Your task to perform on an android device: Open network settings Image 0: 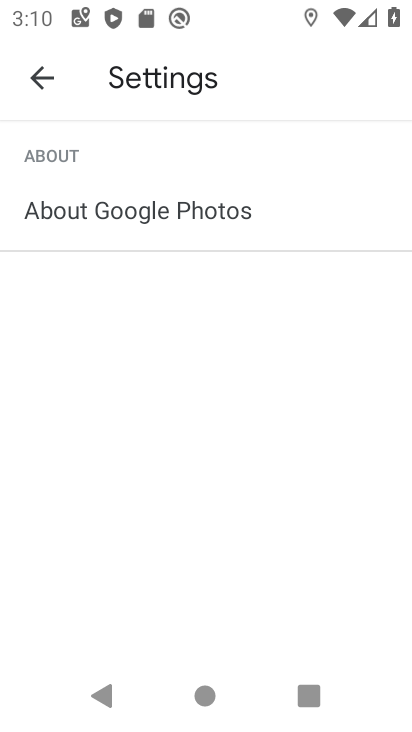
Step 0: press back button
Your task to perform on an android device: Open network settings Image 1: 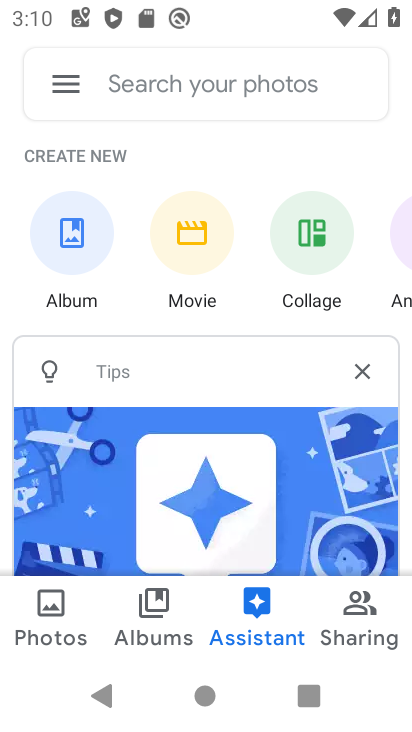
Step 1: press back button
Your task to perform on an android device: Open network settings Image 2: 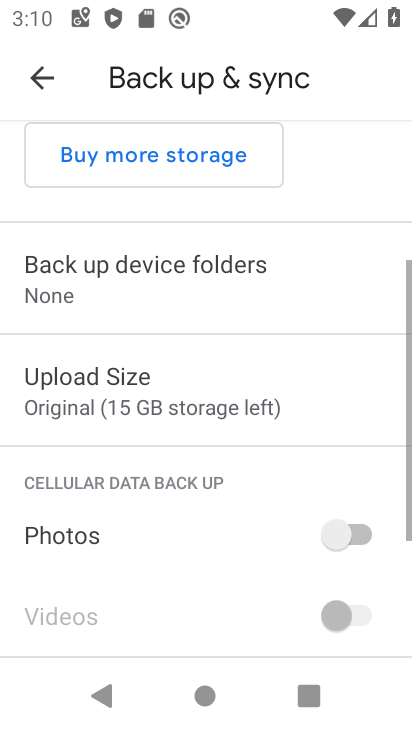
Step 2: press back button
Your task to perform on an android device: Open network settings Image 3: 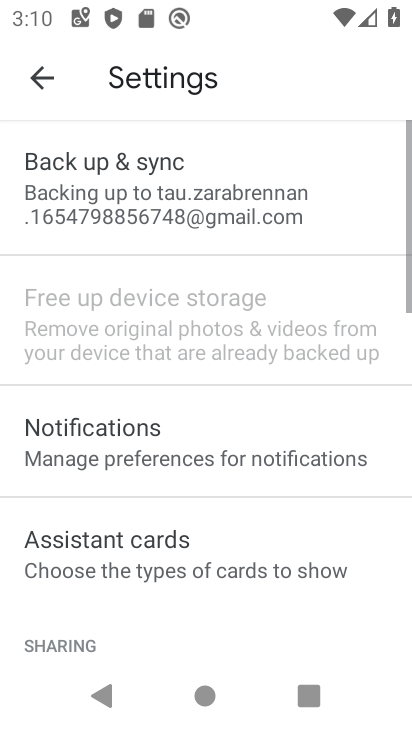
Step 3: press back button
Your task to perform on an android device: Open network settings Image 4: 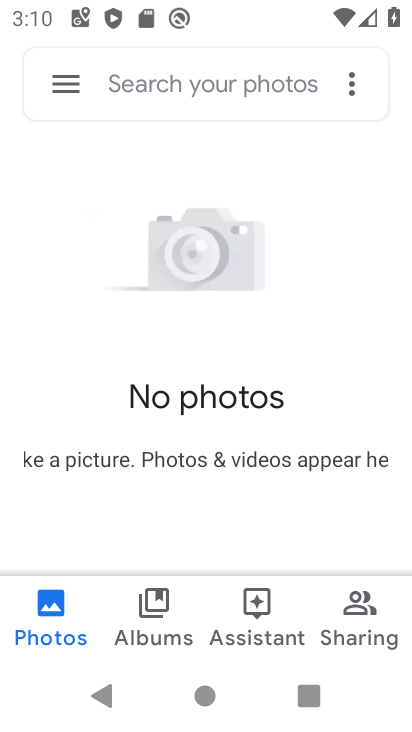
Step 4: press back button
Your task to perform on an android device: Open network settings Image 5: 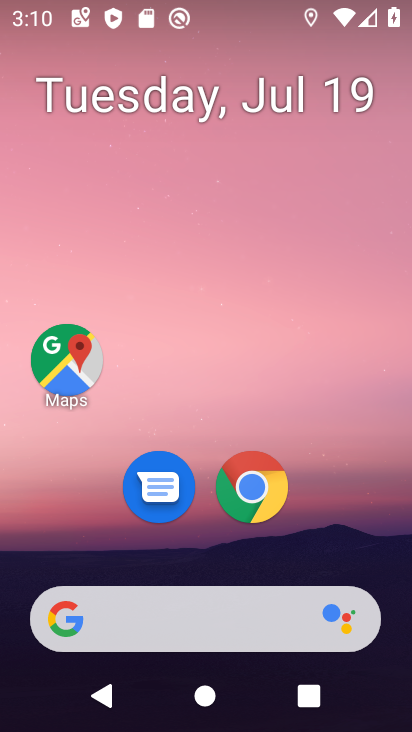
Step 5: drag from (176, 589) to (178, 189)
Your task to perform on an android device: Open network settings Image 6: 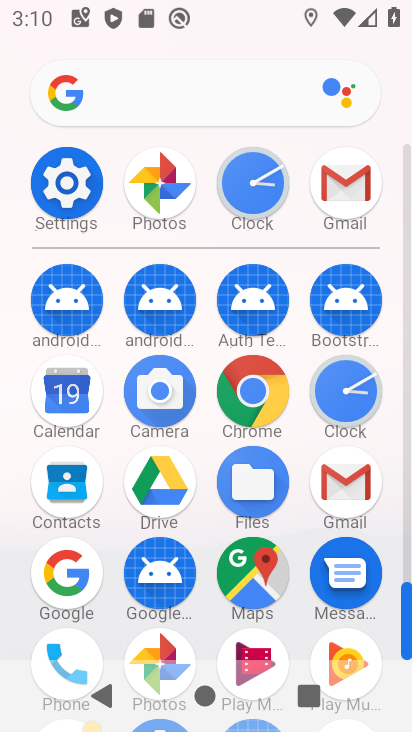
Step 6: click (75, 192)
Your task to perform on an android device: Open network settings Image 7: 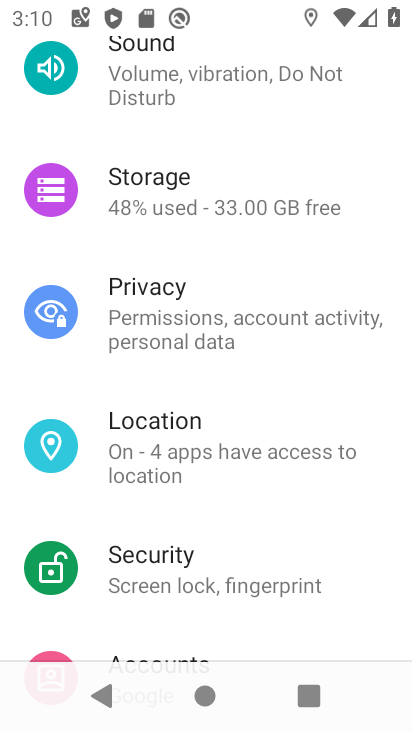
Step 7: click (224, 728)
Your task to perform on an android device: Open network settings Image 8: 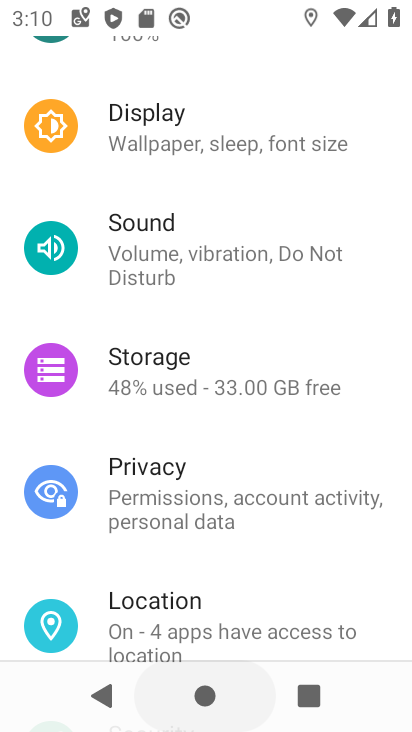
Step 8: drag from (213, 170) to (213, 687)
Your task to perform on an android device: Open network settings Image 9: 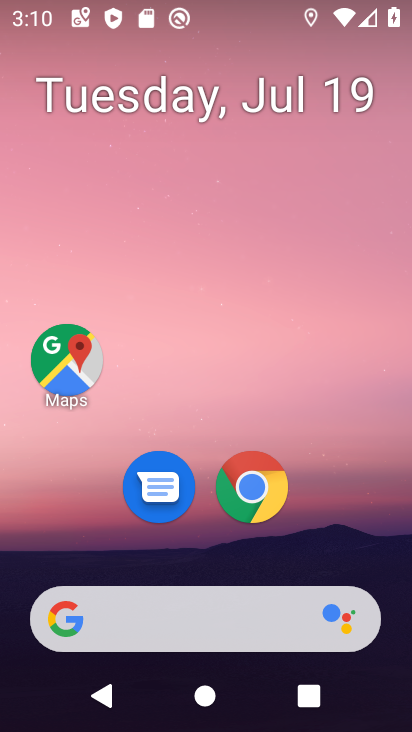
Step 9: drag from (184, 564) to (212, 38)
Your task to perform on an android device: Open network settings Image 10: 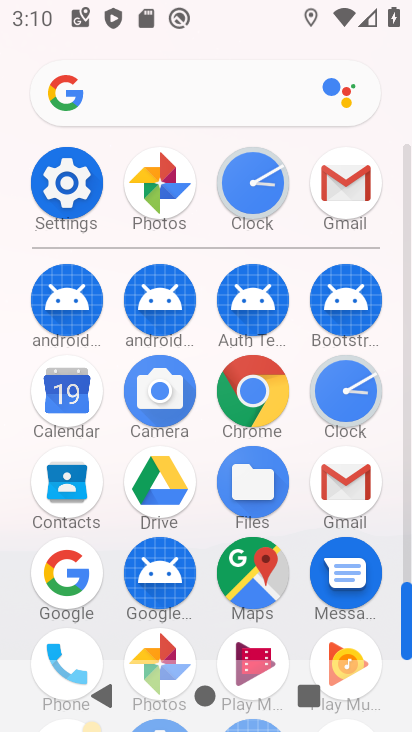
Step 10: click (66, 190)
Your task to perform on an android device: Open network settings Image 11: 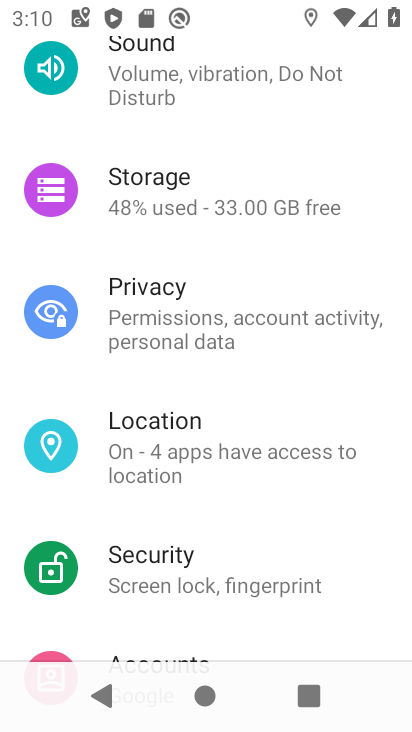
Step 11: drag from (202, 185) to (202, 720)
Your task to perform on an android device: Open network settings Image 12: 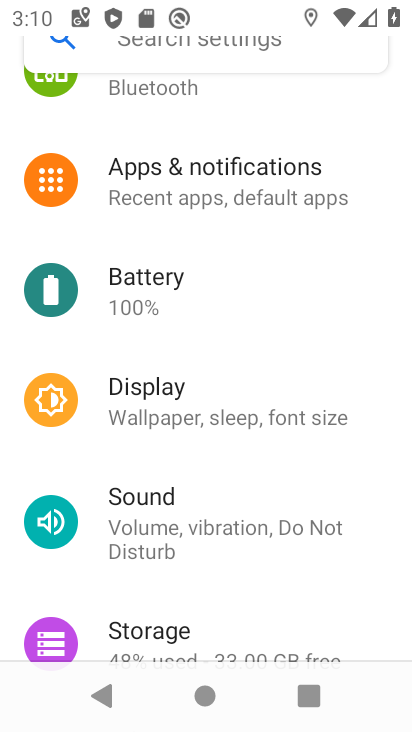
Step 12: drag from (161, 219) to (185, 688)
Your task to perform on an android device: Open network settings Image 13: 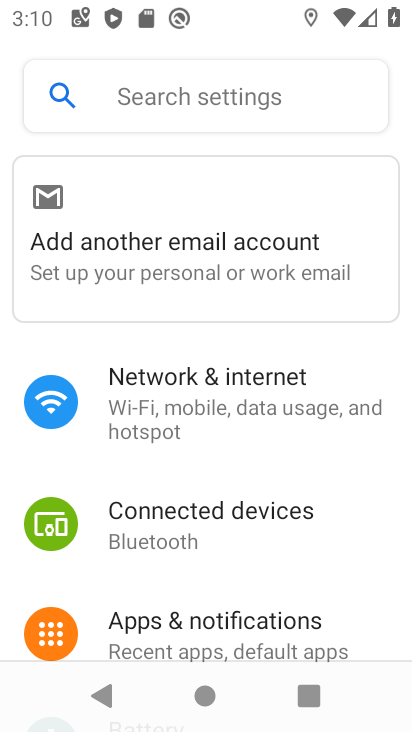
Step 13: click (174, 398)
Your task to perform on an android device: Open network settings Image 14: 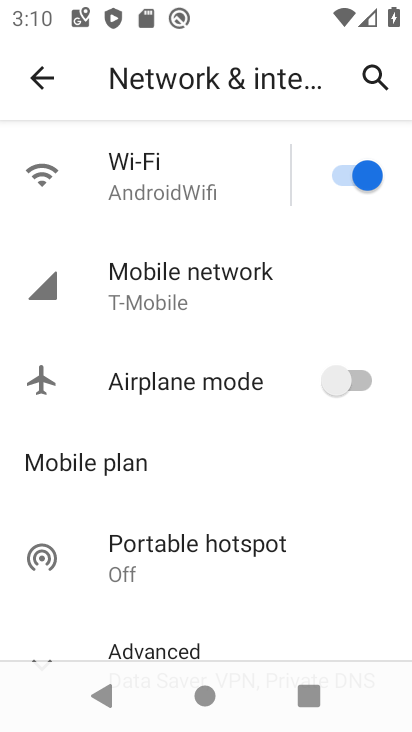
Step 14: task complete